Your task to perform on an android device: Go to Amazon Image 0: 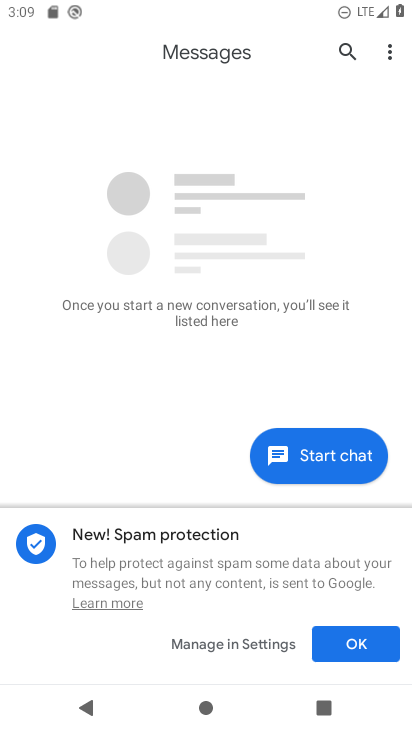
Step 0: press home button
Your task to perform on an android device: Go to Amazon Image 1: 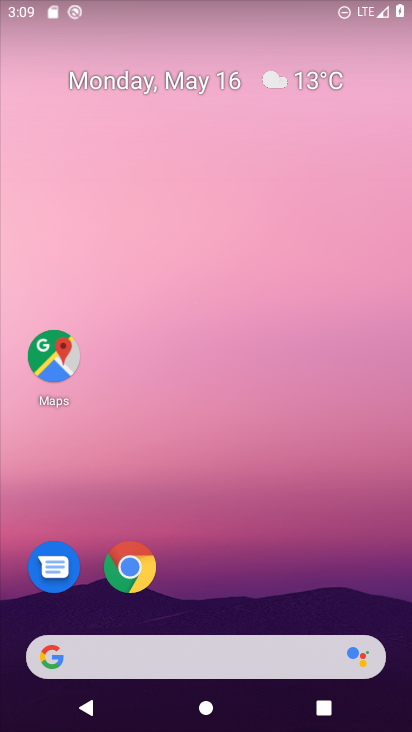
Step 1: click (121, 563)
Your task to perform on an android device: Go to Amazon Image 2: 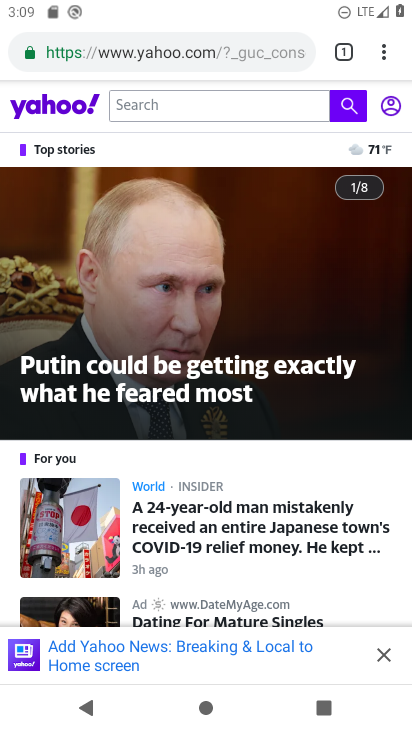
Step 2: click (341, 50)
Your task to perform on an android device: Go to Amazon Image 3: 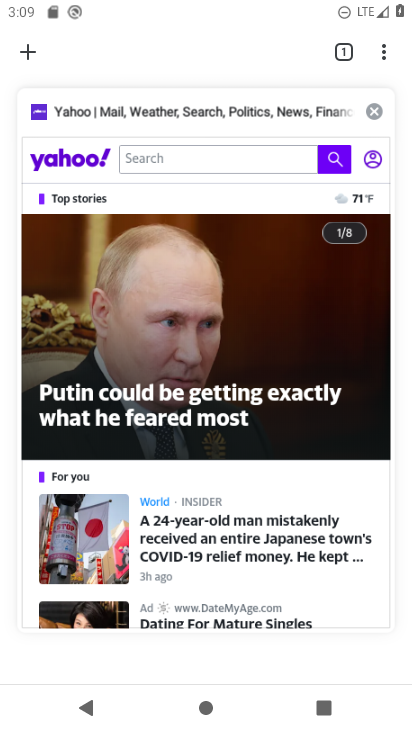
Step 3: click (375, 117)
Your task to perform on an android device: Go to Amazon Image 4: 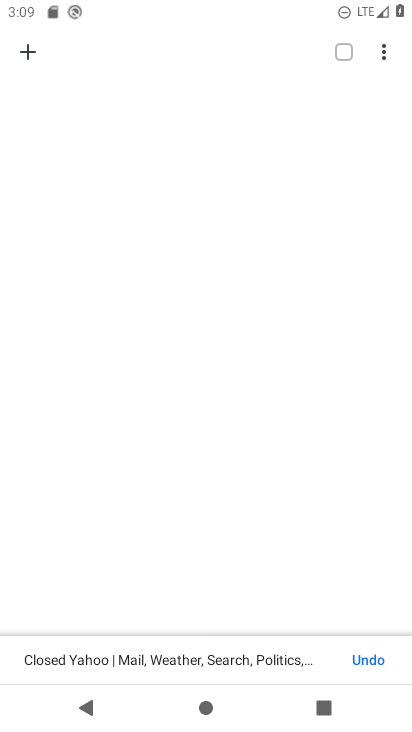
Step 4: click (35, 56)
Your task to perform on an android device: Go to Amazon Image 5: 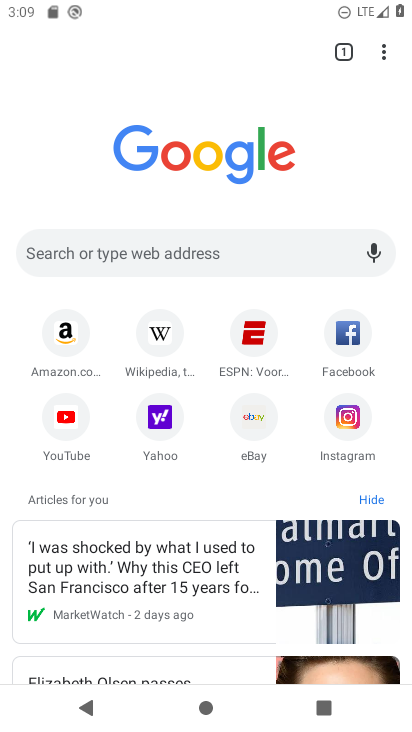
Step 5: click (55, 331)
Your task to perform on an android device: Go to Amazon Image 6: 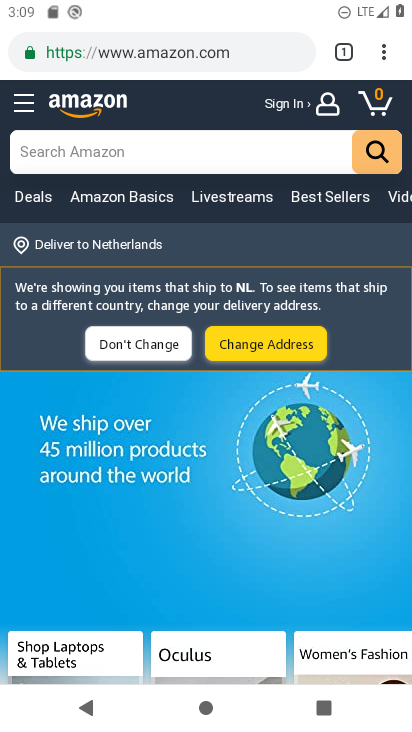
Step 6: task complete